Your task to perform on an android device: Open the calendar app, open the side menu, and click the "Day" option Image 0: 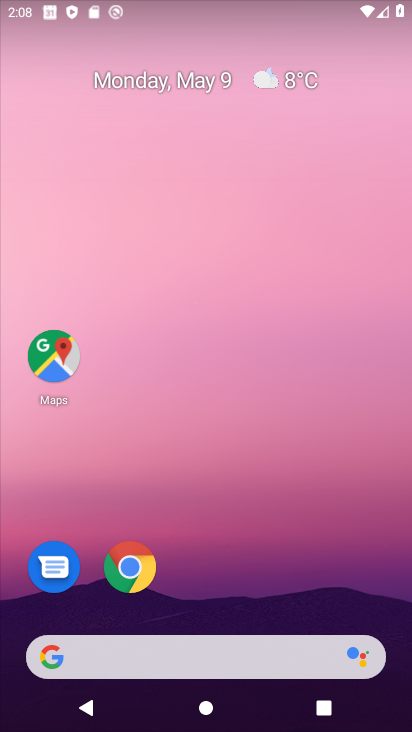
Step 0: drag from (256, 528) to (284, 288)
Your task to perform on an android device: Open the calendar app, open the side menu, and click the "Day" option Image 1: 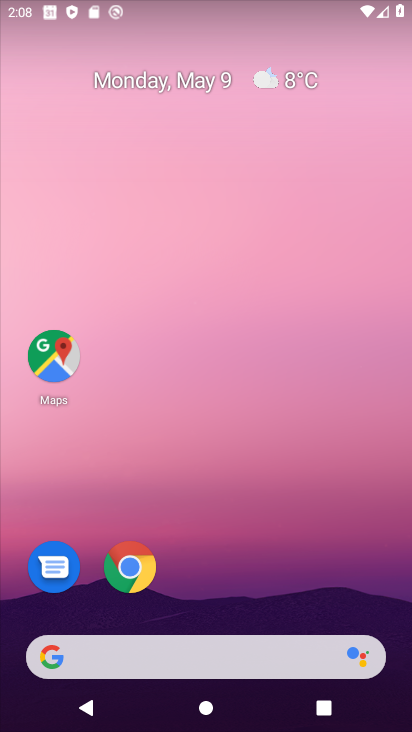
Step 1: drag from (239, 566) to (259, 279)
Your task to perform on an android device: Open the calendar app, open the side menu, and click the "Day" option Image 2: 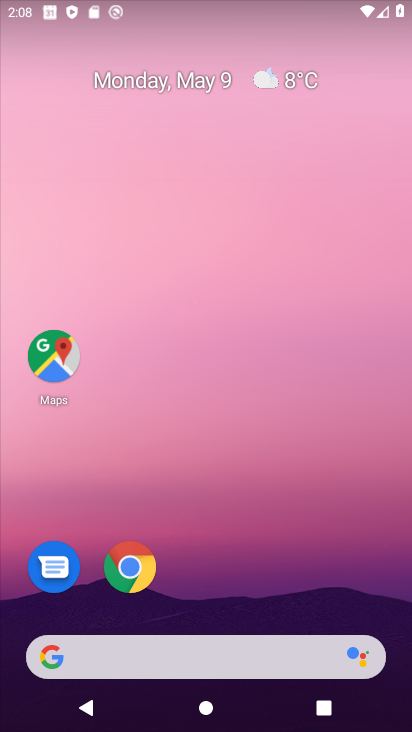
Step 2: drag from (235, 628) to (297, 264)
Your task to perform on an android device: Open the calendar app, open the side menu, and click the "Day" option Image 3: 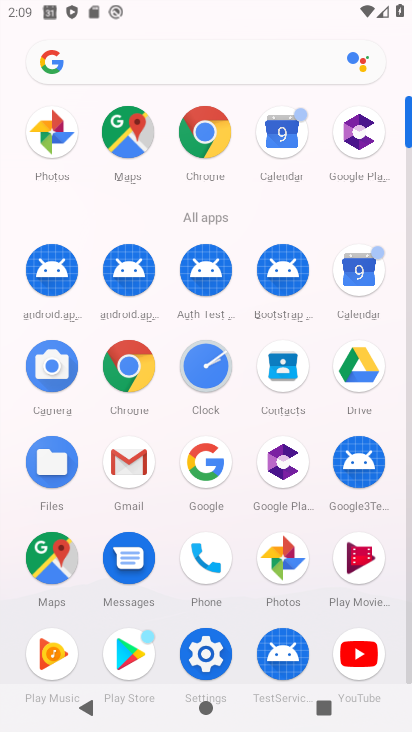
Step 3: click (359, 268)
Your task to perform on an android device: Open the calendar app, open the side menu, and click the "Day" option Image 4: 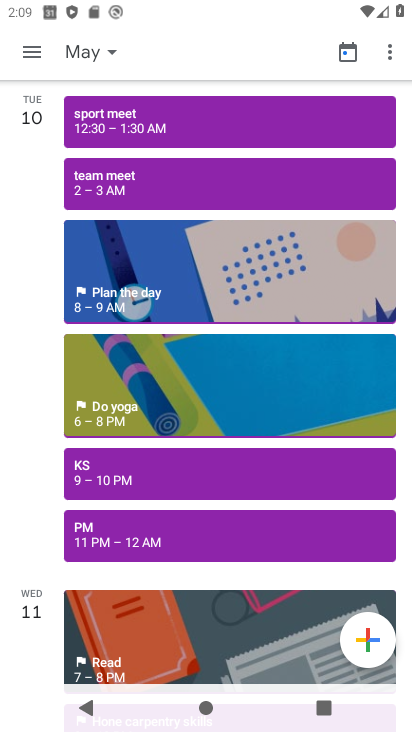
Step 4: click (17, 49)
Your task to perform on an android device: Open the calendar app, open the side menu, and click the "Day" option Image 5: 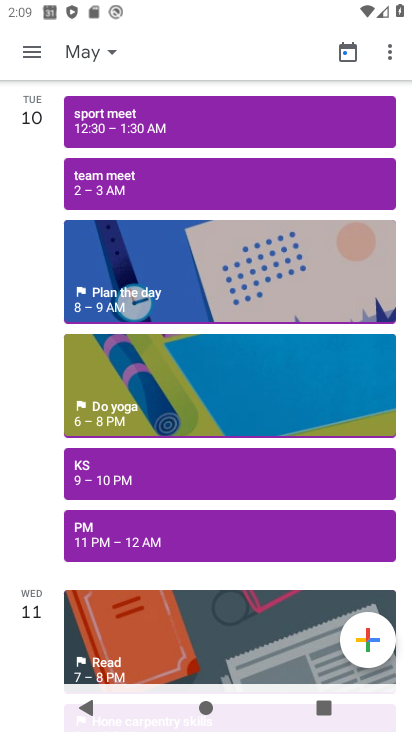
Step 5: click (27, 47)
Your task to perform on an android device: Open the calendar app, open the side menu, and click the "Day" option Image 6: 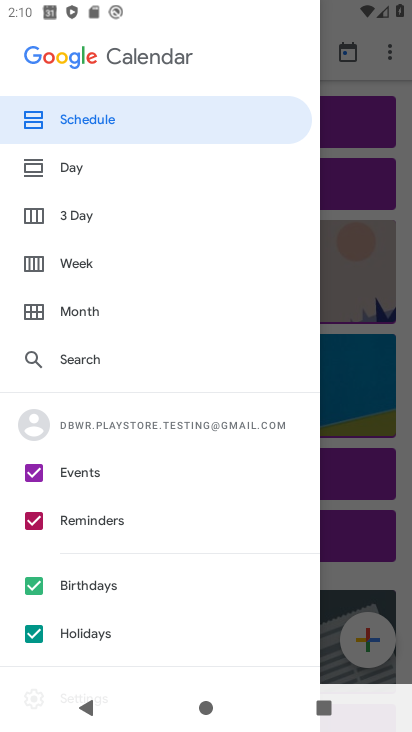
Step 6: click (48, 166)
Your task to perform on an android device: Open the calendar app, open the side menu, and click the "Day" option Image 7: 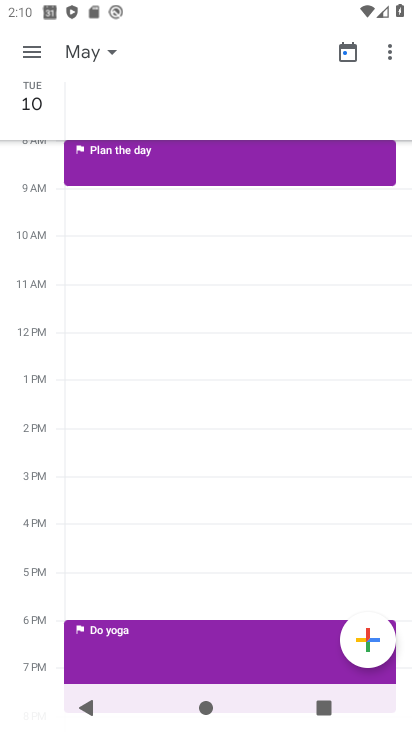
Step 7: task complete